Your task to perform on an android device: What's the news in Japan? Image 0: 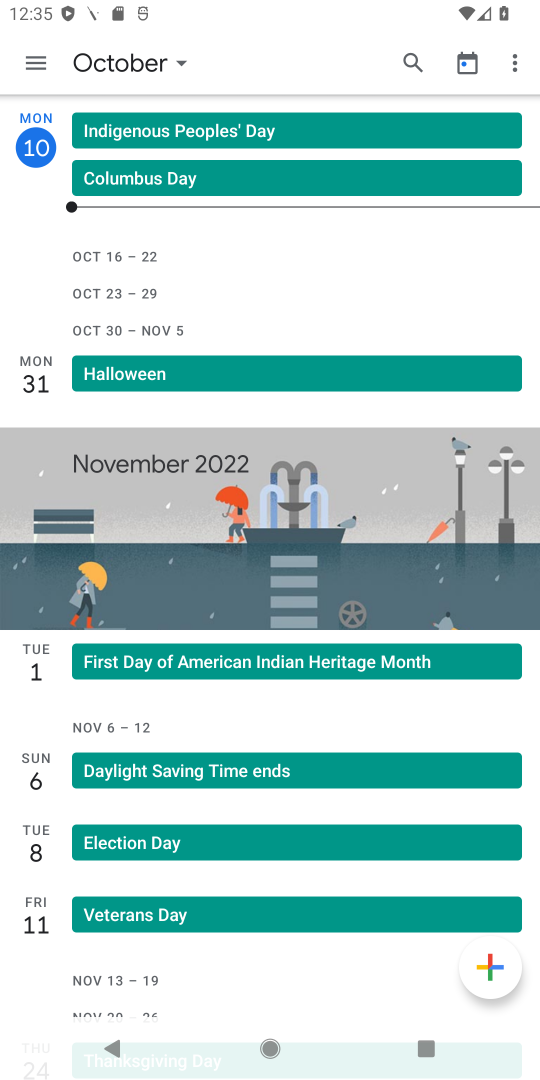
Step 0: press home button
Your task to perform on an android device: What's the news in Japan? Image 1: 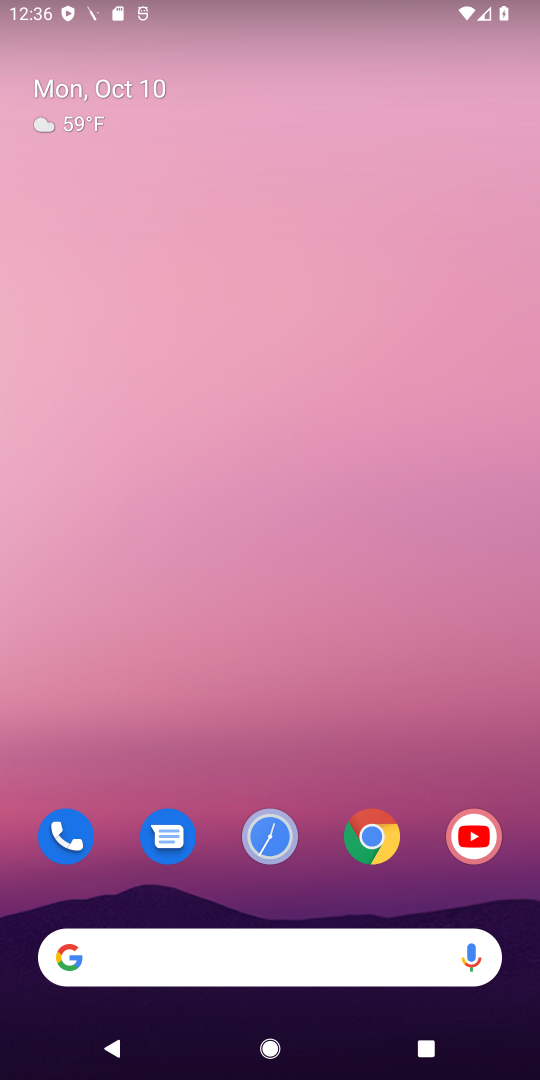
Step 1: click (372, 840)
Your task to perform on an android device: What's the news in Japan? Image 2: 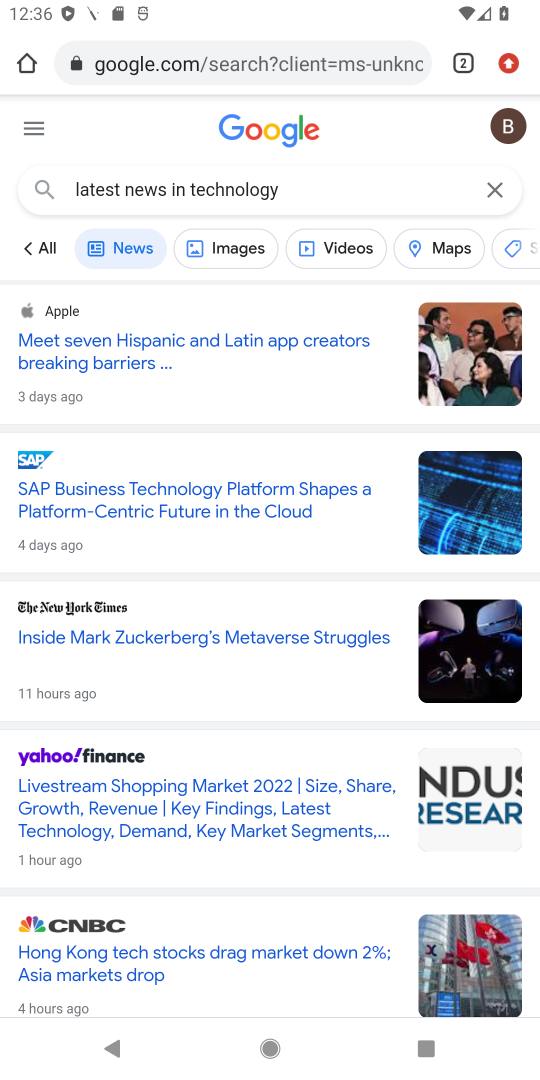
Step 2: click (187, 58)
Your task to perform on an android device: What's the news in Japan? Image 3: 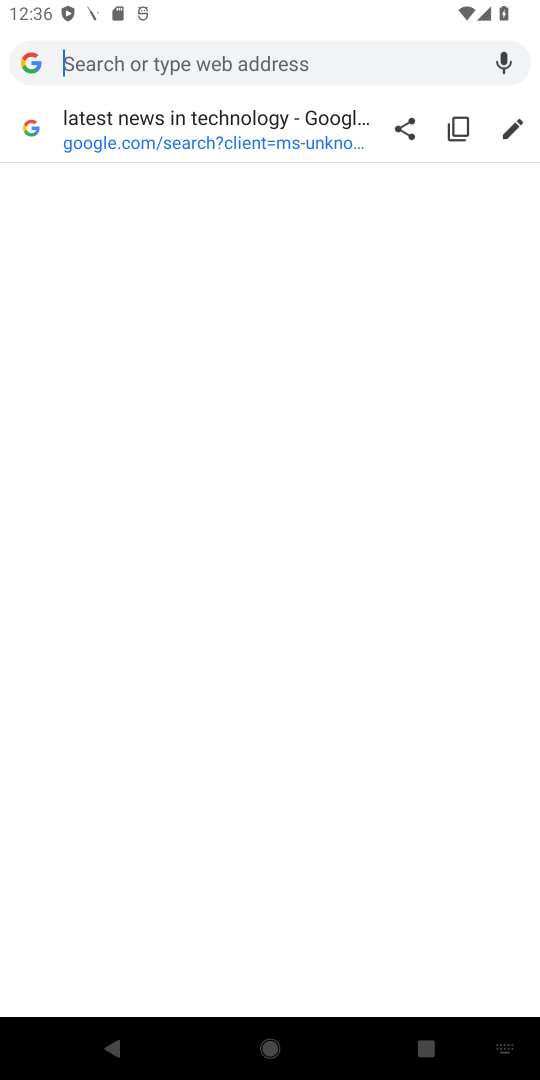
Step 3: type "news in Japan"
Your task to perform on an android device: What's the news in Japan? Image 4: 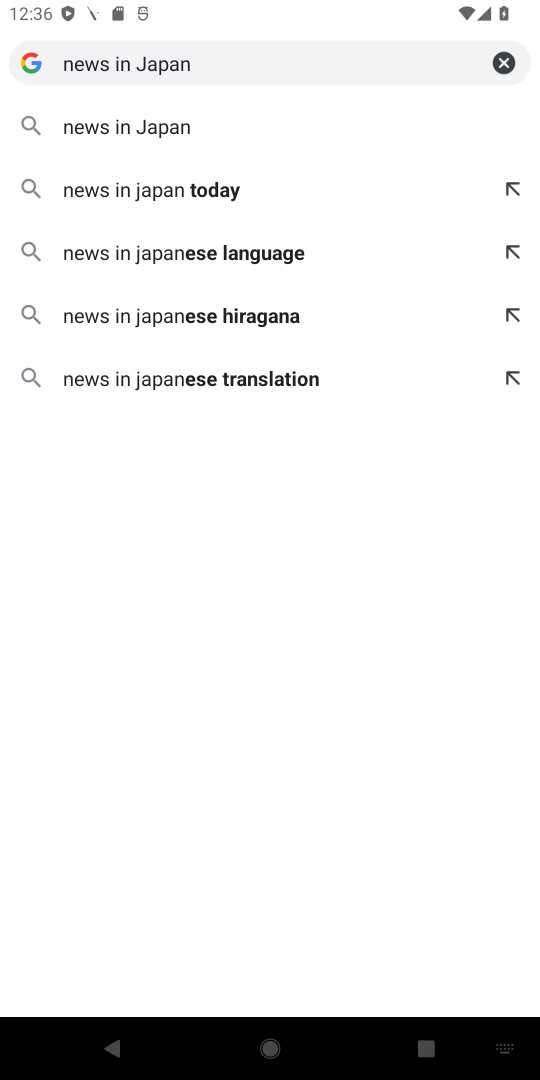
Step 4: click (222, 121)
Your task to perform on an android device: What's the news in Japan? Image 5: 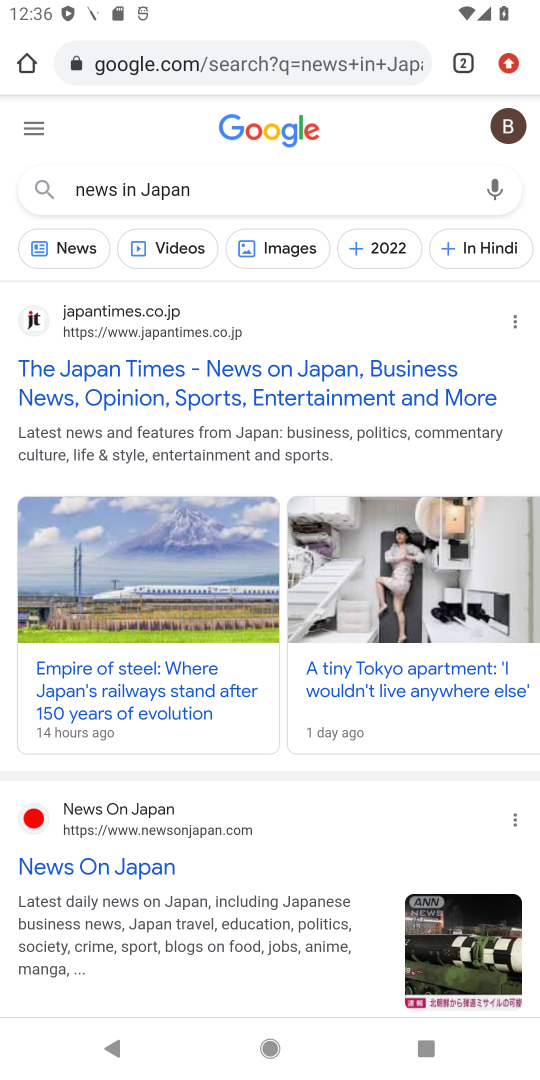
Step 5: click (73, 253)
Your task to perform on an android device: What's the news in Japan? Image 6: 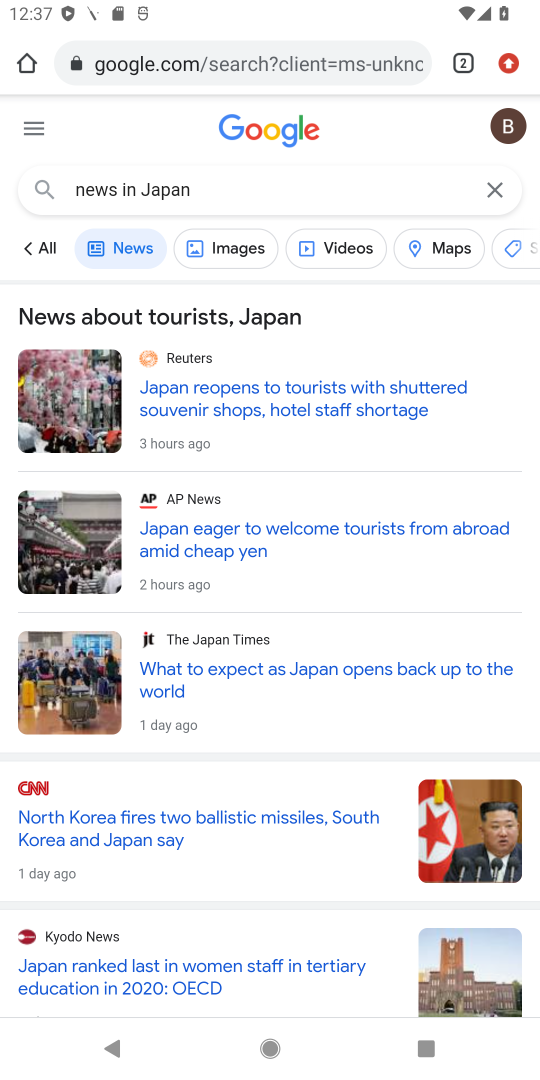
Step 6: task complete